Your task to perform on an android device: What's the weather today? Image 0: 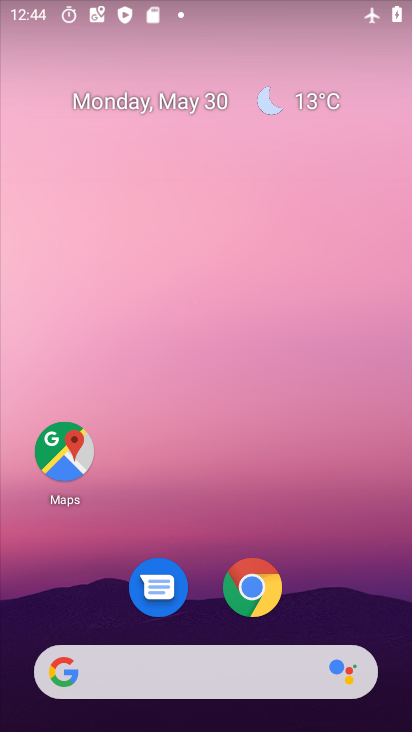
Step 0: click (321, 106)
Your task to perform on an android device: What's the weather today? Image 1: 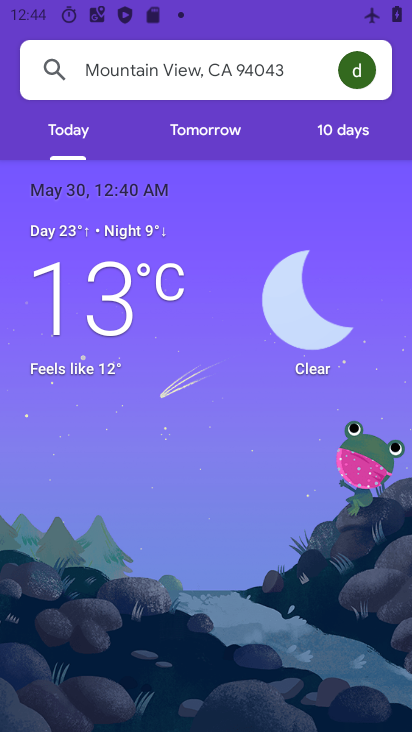
Step 1: task complete